Your task to perform on an android device: add a contact in the contacts app Image 0: 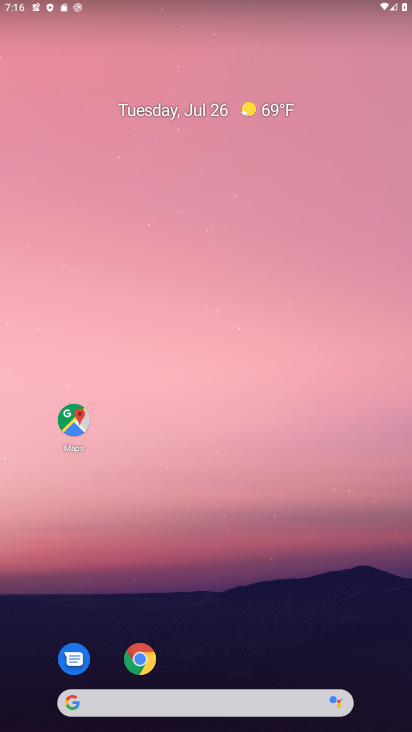
Step 0: drag from (265, 714) to (310, 74)
Your task to perform on an android device: add a contact in the contacts app Image 1: 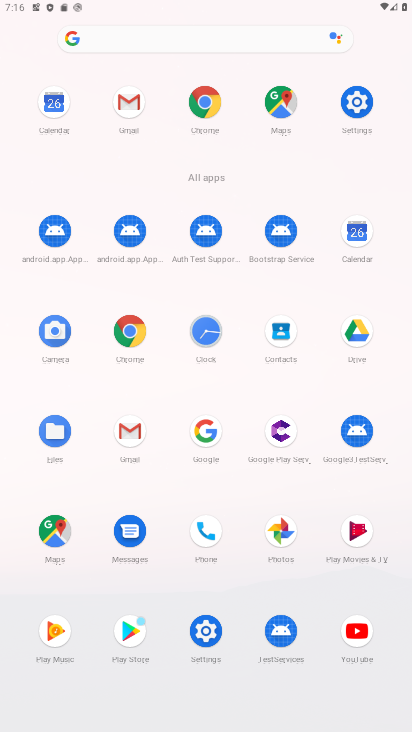
Step 1: click (209, 543)
Your task to perform on an android device: add a contact in the contacts app Image 2: 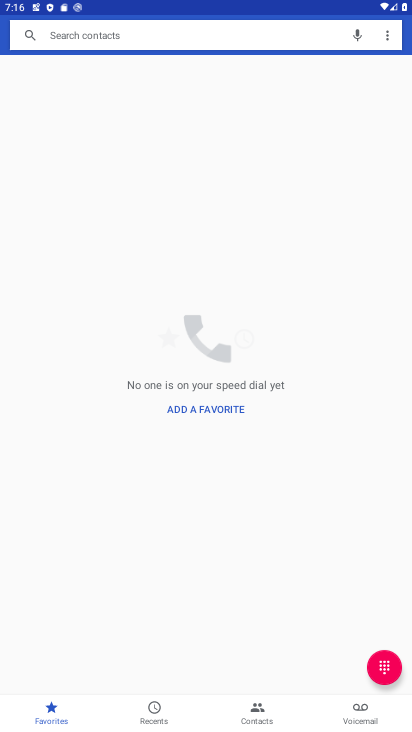
Step 2: click (248, 717)
Your task to perform on an android device: add a contact in the contacts app Image 3: 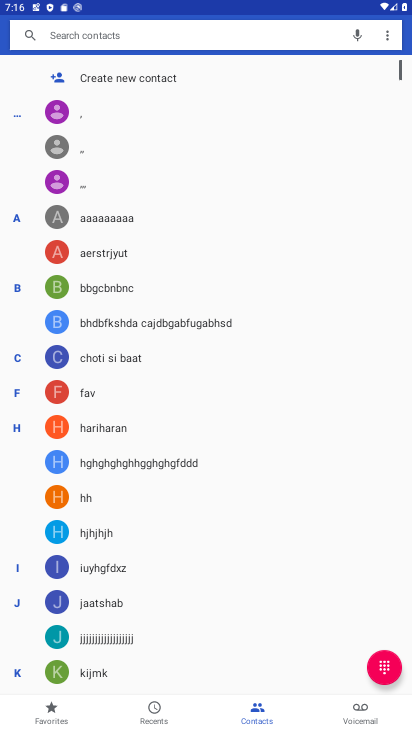
Step 3: click (99, 76)
Your task to perform on an android device: add a contact in the contacts app Image 4: 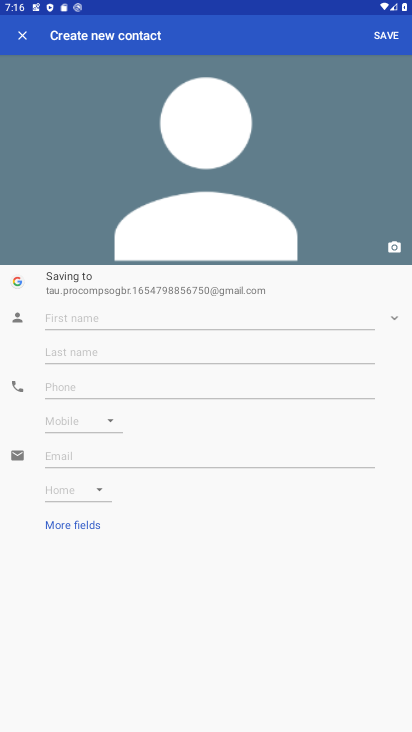
Step 4: click (71, 320)
Your task to perform on an android device: add a contact in the contacts app Image 5: 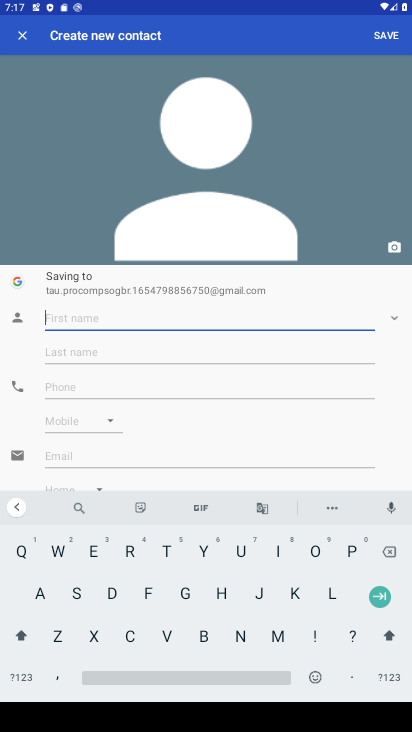
Step 5: click (158, 553)
Your task to perform on an android device: add a contact in the contacts app Image 6: 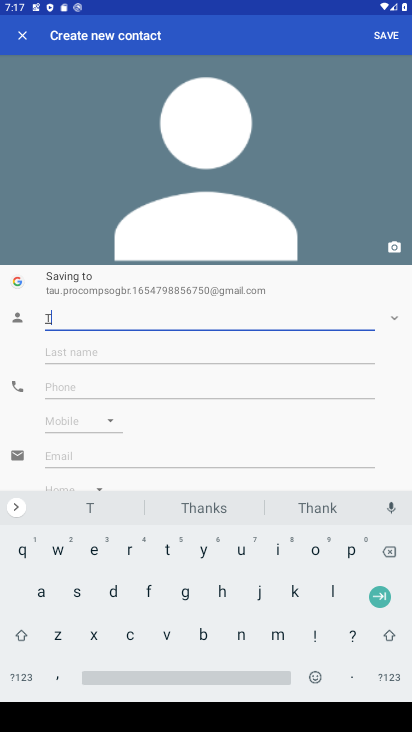
Step 6: click (231, 597)
Your task to perform on an android device: add a contact in the contacts app Image 7: 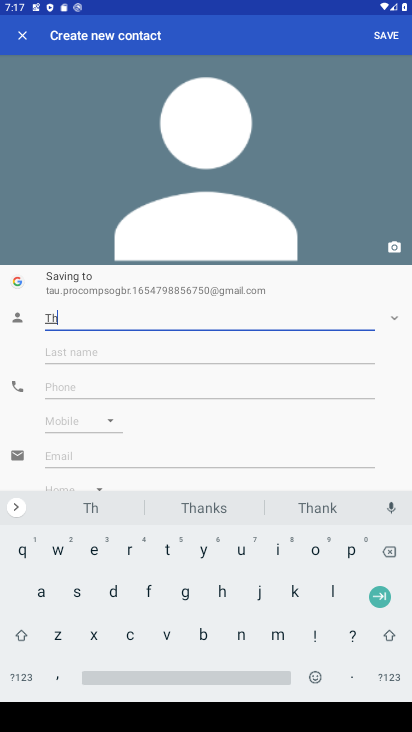
Step 7: click (187, 411)
Your task to perform on an android device: add a contact in the contacts app Image 8: 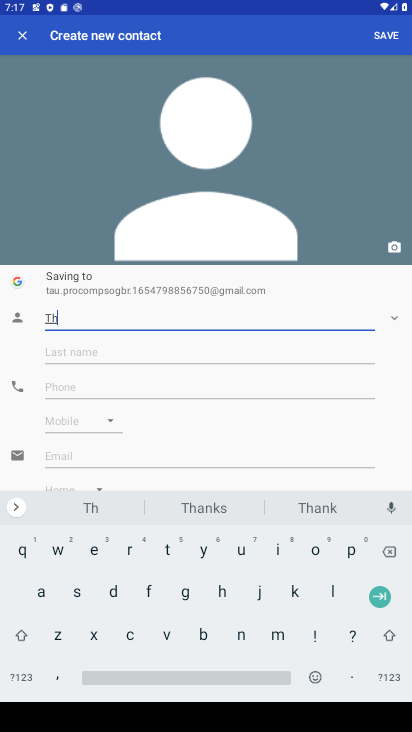
Step 8: click (118, 587)
Your task to perform on an android device: add a contact in the contacts app Image 9: 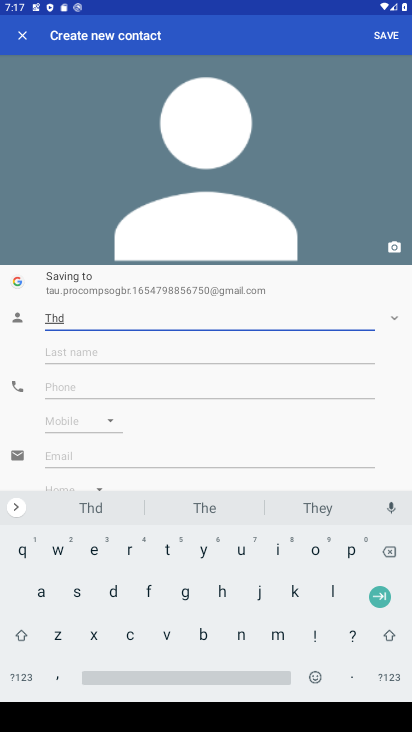
Step 9: click (64, 383)
Your task to perform on an android device: add a contact in the contacts app Image 10: 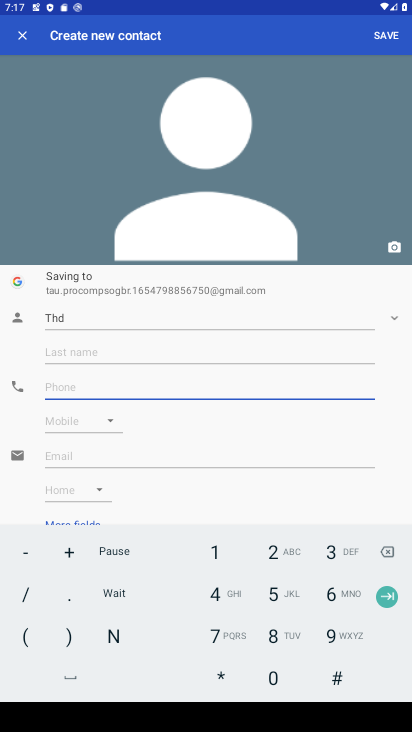
Step 10: click (235, 585)
Your task to perform on an android device: add a contact in the contacts app Image 11: 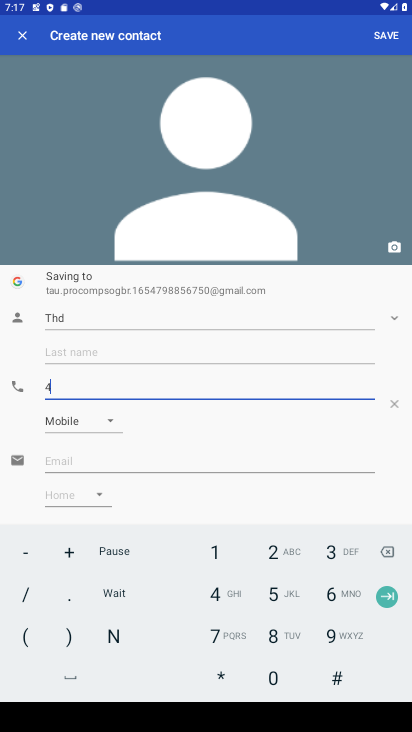
Step 11: click (202, 617)
Your task to perform on an android device: add a contact in the contacts app Image 12: 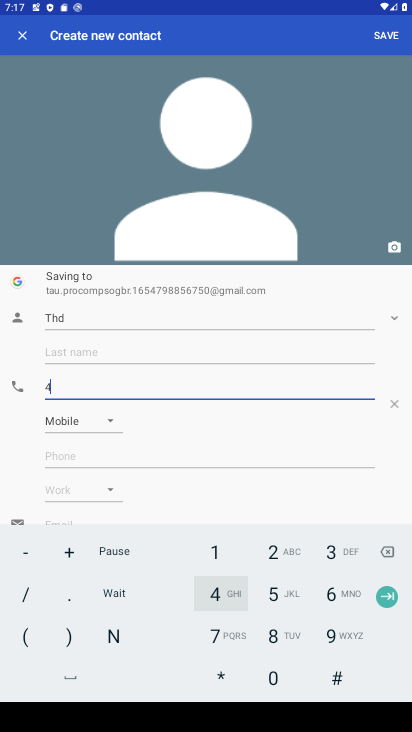
Step 12: click (296, 591)
Your task to perform on an android device: add a contact in the contacts app Image 13: 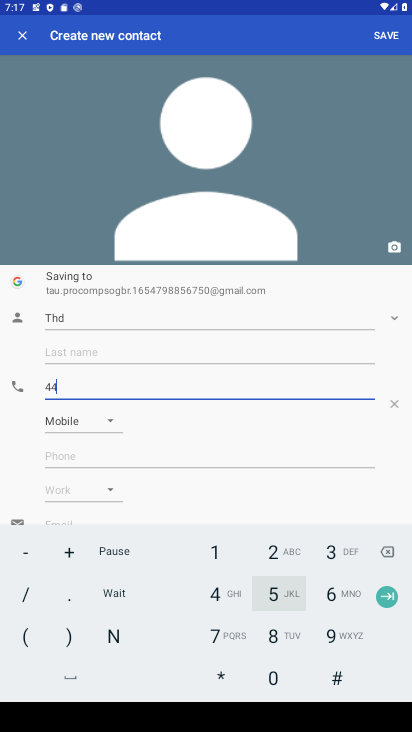
Step 13: click (265, 630)
Your task to perform on an android device: add a contact in the contacts app Image 14: 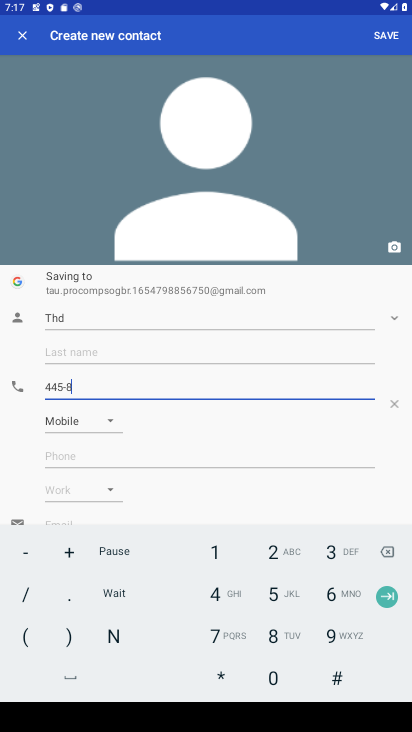
Step 14: click (323, 563)
Your task to perform on an android device: add a contact in the contacts app Image 15: 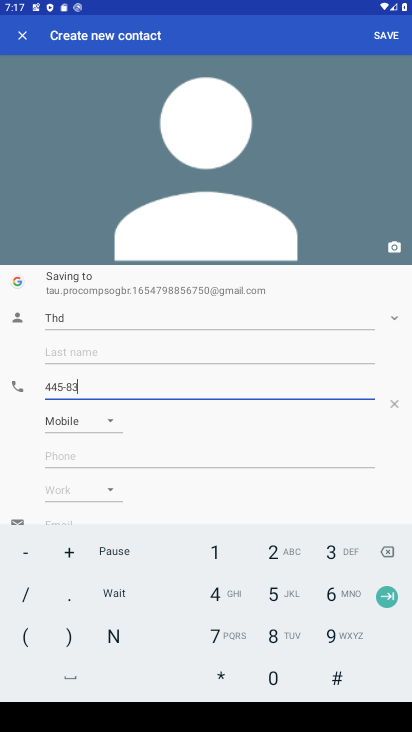
Step 15: click (296, 612)
Your task to perform on an android device: add a contact in the contacts app Image 16: 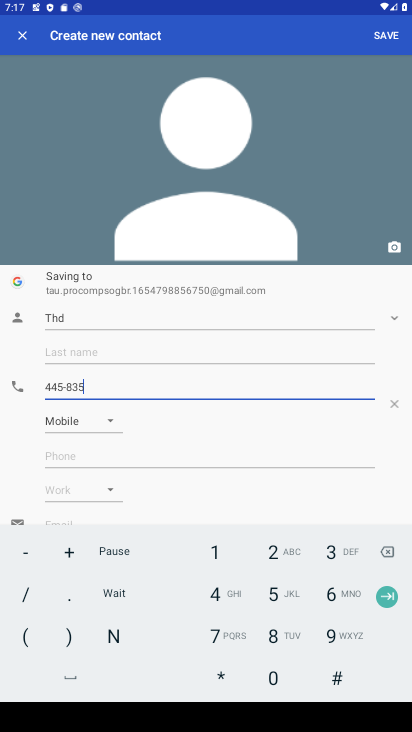
Step 16: click (278, 605)
Your task to perform on an android device: add a contact in the contacts app Image 17: 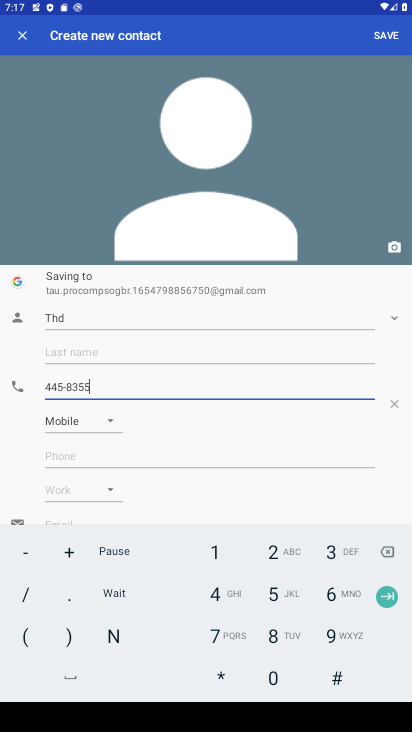
Step 17: click (281, 600)
Your task to perform on an android device: add a contact in the contacts app Image 18: 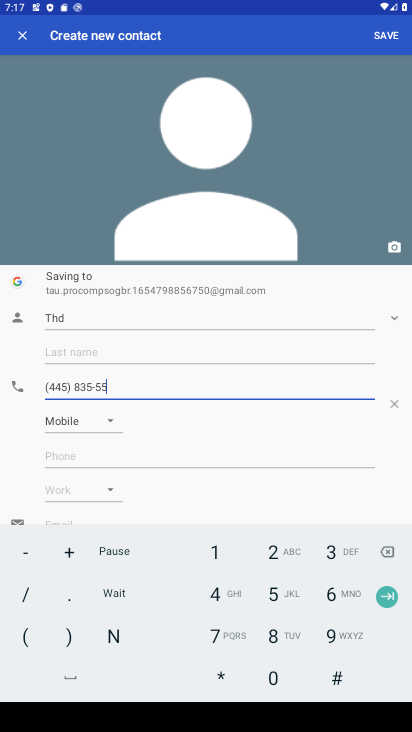
Step 18: click (397, 29)
Your task to perform on an android device: add a contact in the contacts app Image 19: 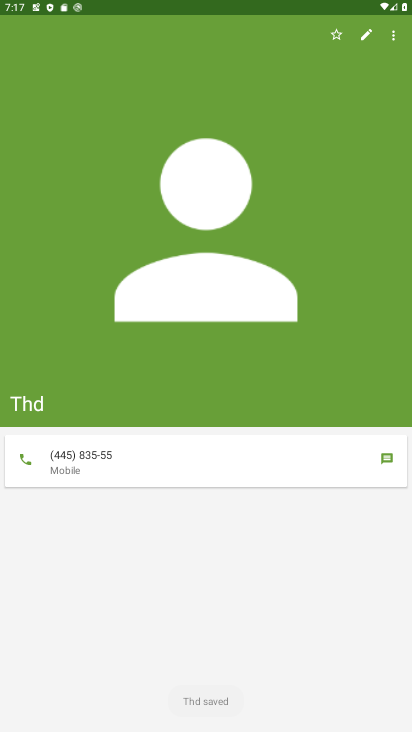
Step 19: task complete